Your task to perform on an android device: Open Google Maps and go to "Timeline" Image 0: 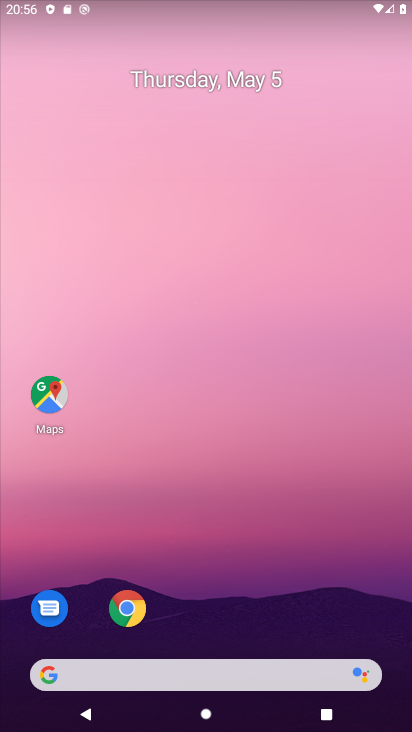
Step 0: drag from (347, 665) to (292, 69)
Your task to perform on an android device: Open Google Maps and go to "Timeline" Image 1: 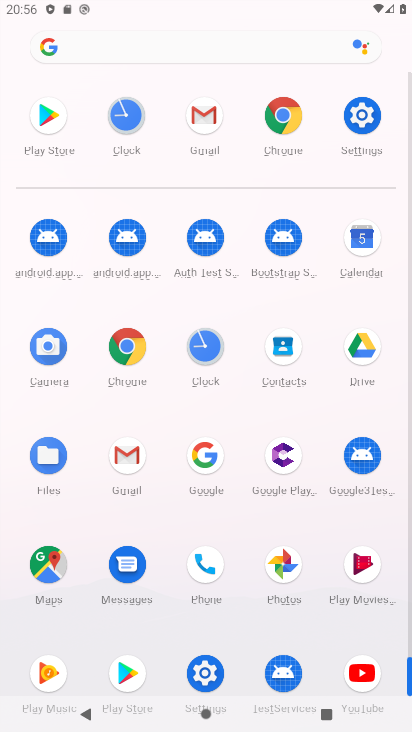
Step 1: click (50, 568)
Your task to perform on an android device: Open Google Maps and go to "Timeline" Image 2: 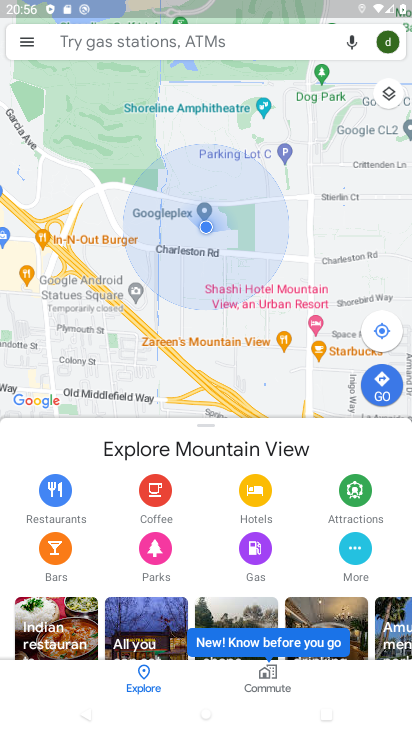
Step 2: drag from (31, 41) to (66, 181)
Your task to perform on an android device: Open Google Maps and go to "Timeline" Image 3: 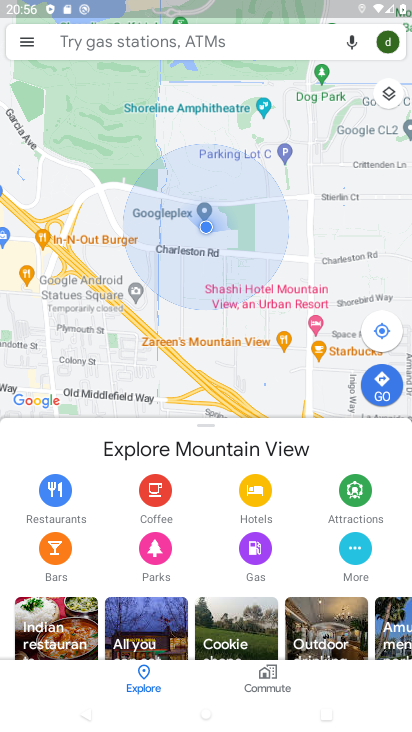
Step 3: click (26, 42)
Your task to perform on an android device: Open Google Maps and go to "Timeline" Image 4: 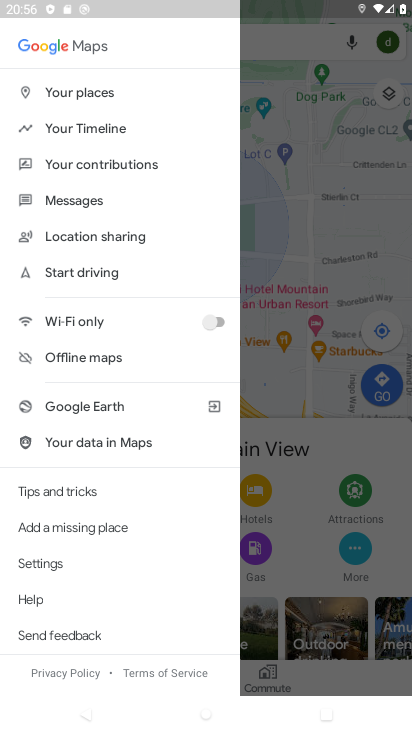
Step 4: click (80, 128)
Your task to perform on an android device: Open Google Maps and go to "Timeline" Image 5: 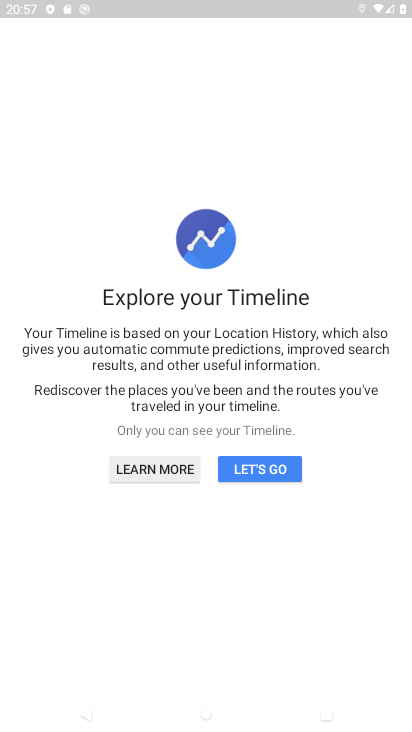
Step 5: click (255, 469)
Your task to perform on an android device: Open Google Maps and go to "Timeline" Image 6: 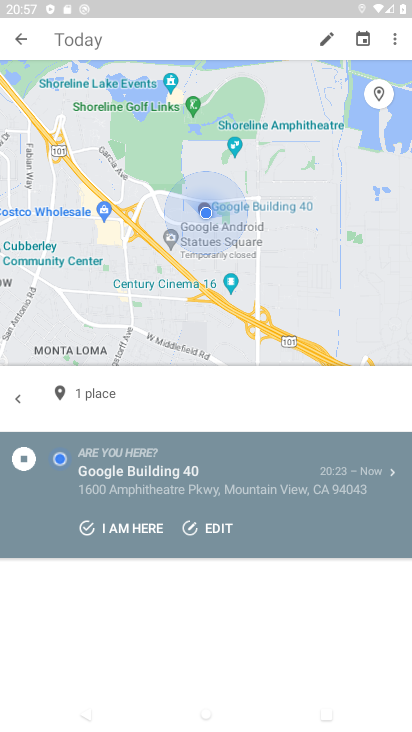
Step 6: task complete